Your task to perform on an android device: change text size in settings app Image 0: 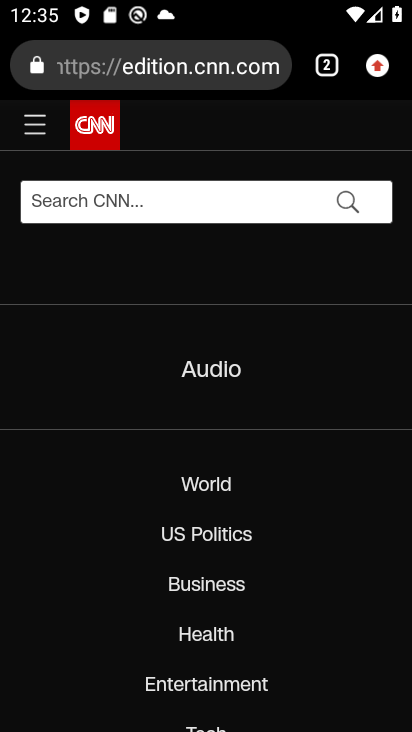
Step 0: press home button
Your task to perform on an android device: change text size in settings app Image 1: 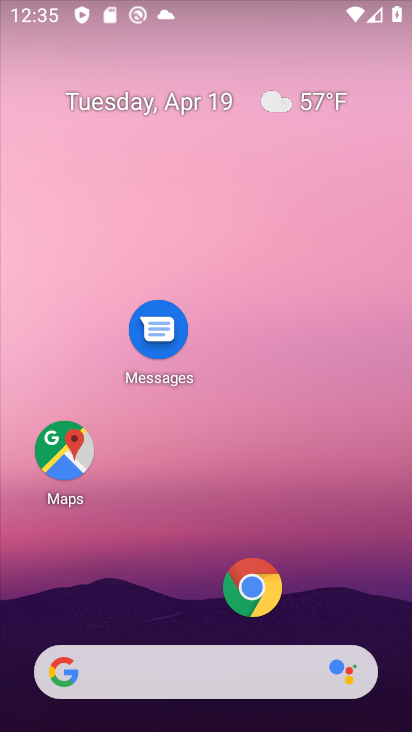
Step 1: drag from (184, 559) to (196, 99)
Your task to perform on an android device: change text size in settings app Image 2: 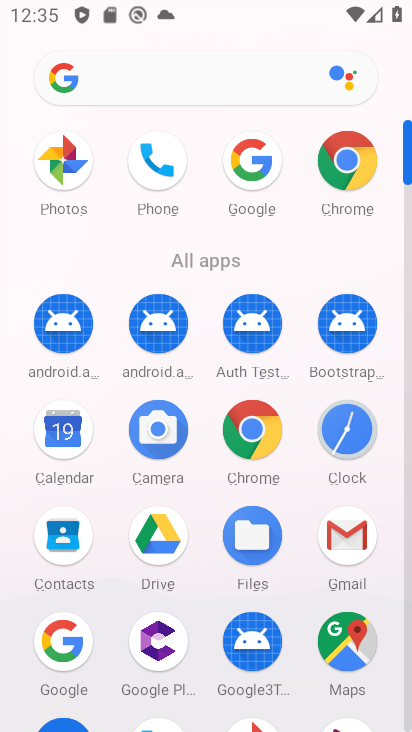
Step 2: drag from (191, 601) to (181, 120)
Your task to perform on an android device: change text size in settings app Image 3: 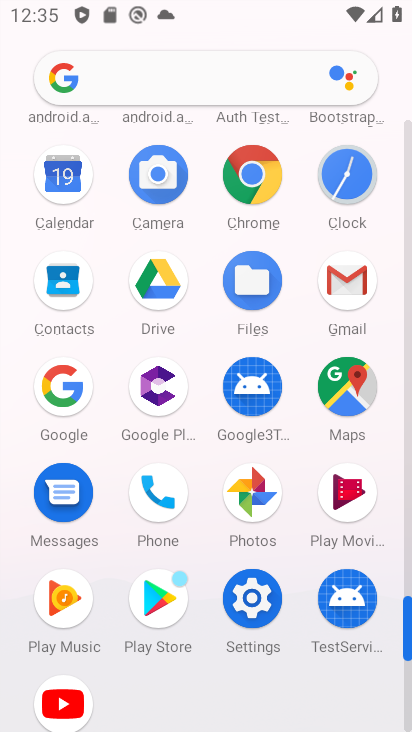
Step 3: click (248, 598)
Your task to perform on an android device: change text size in settings app Image 4: 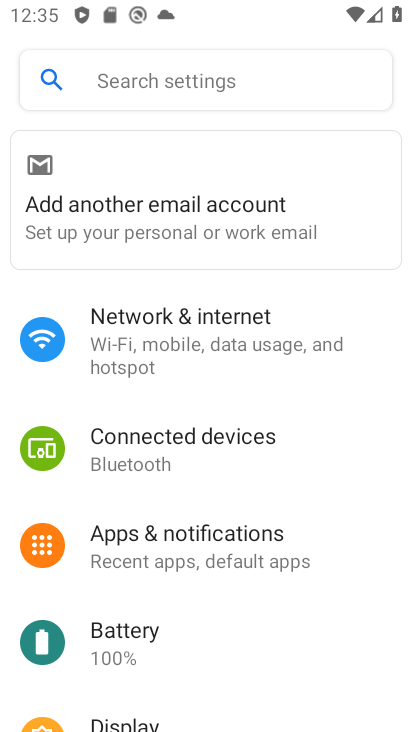
Step 4: drag from (223, 616) to (189, 284)
Your task to perform on an android device: change text size in settings app Image 5: 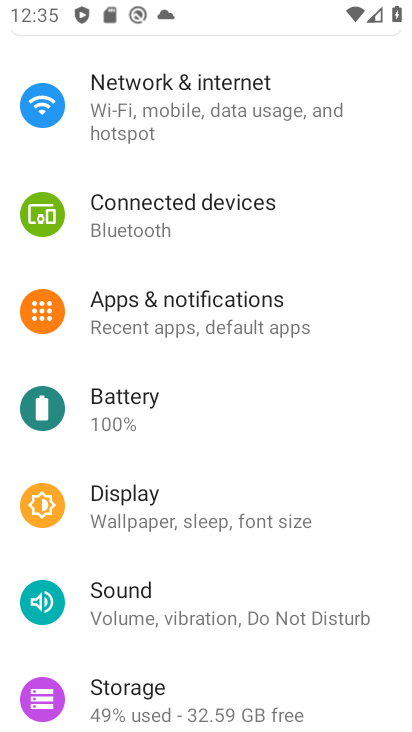
Step 5: click (182, 516)
Your task to perform on an android device: change text size in settings app Image 6: 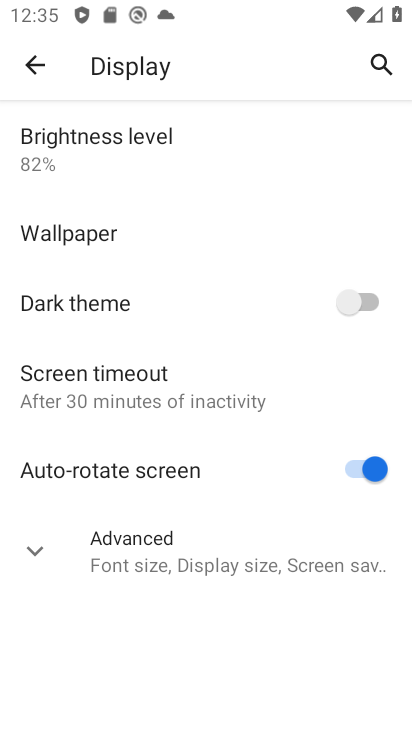
Step 6: click (181, 565)
Your task to perform on an android device: change text size in settings app Image 7: 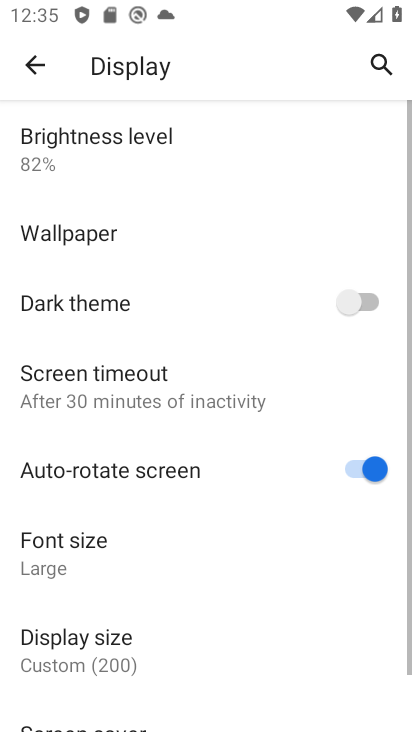
Step 7: drag from (219, 608) to (200, 386)
Your task to perform on an android device: change text size in settings app Image 8: 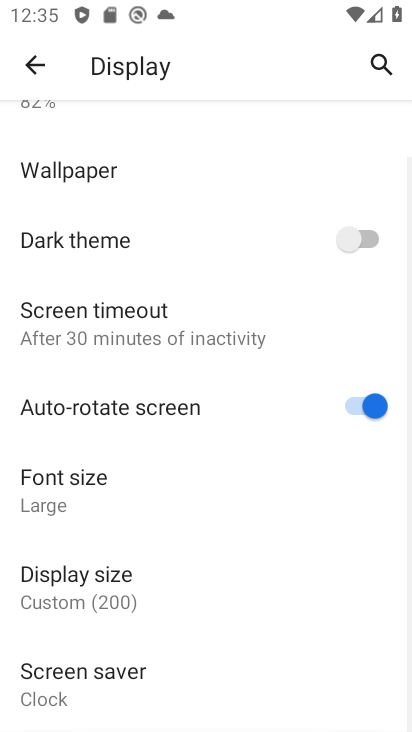
Step 8: click (91, 497)
Your task to perform on an android device: change text size in settings app Image 9: 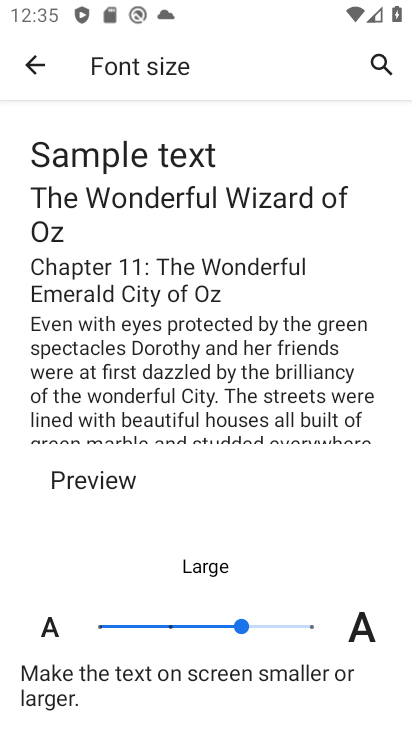
Step 9: task complete